Your task to perform on an android device: Open Maps and search for coffee Image 0: 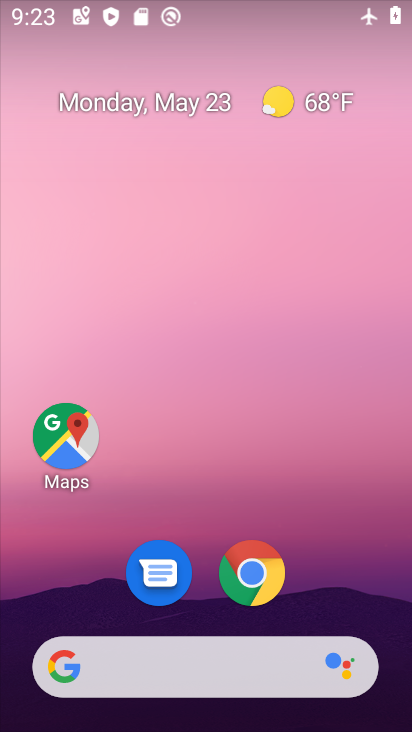
Step 0: click (80, 429)
Your task to perform on an android device: Open Maps and search for coffee Image 1: 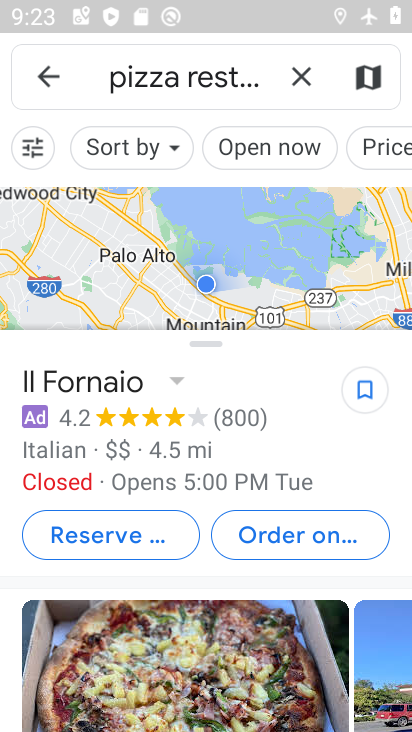
Step 1: click (302, 81)
Your task to perform on an android device: Open Maps and search for coffee Image 2: 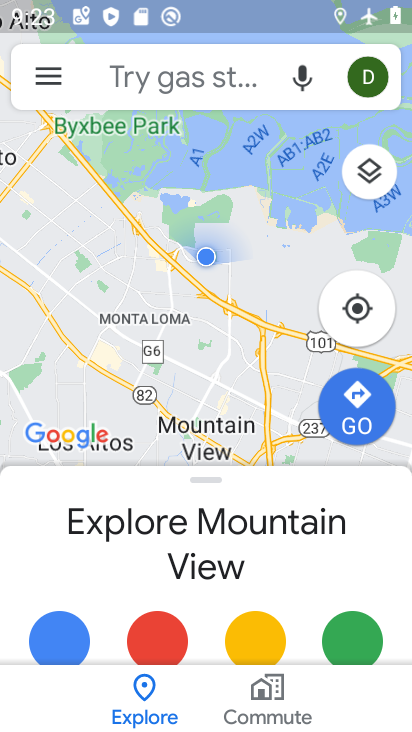
Step 2: click (212, 88)
Your task to perform on an android device: Open Maps and search for coffee Image 3: 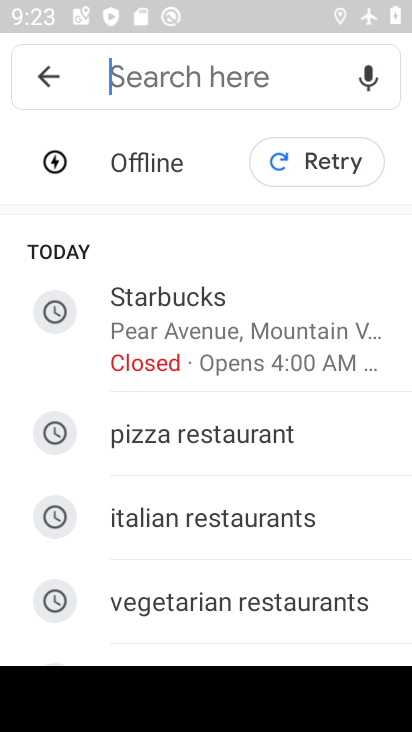
Step 3: drag from (324, 503) to (327, 138)
Your task to perform on an android device: Open Maps and search for coffee Image 4: 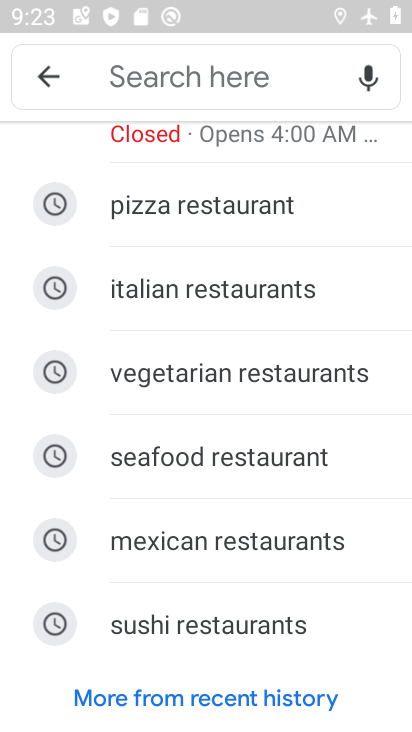
Step 4: drag from (270, 499) to (308, 341)
Your task to perform on an android device: Open Maps and search for coffee Image 5: 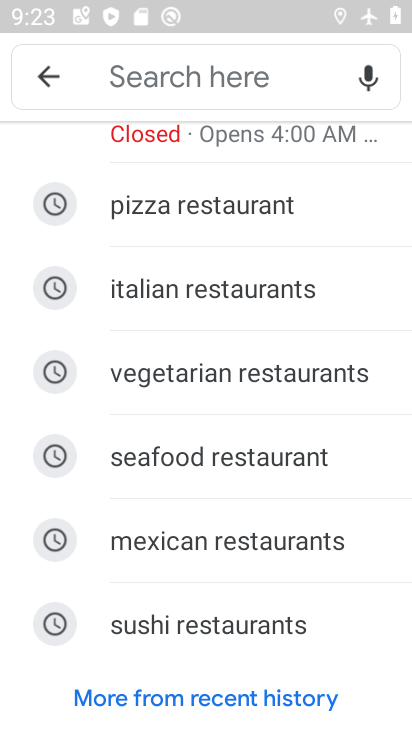
Step 5: click (270, 69)
Your task to perform on an android device: Open Maps and search for coffee Image 6: 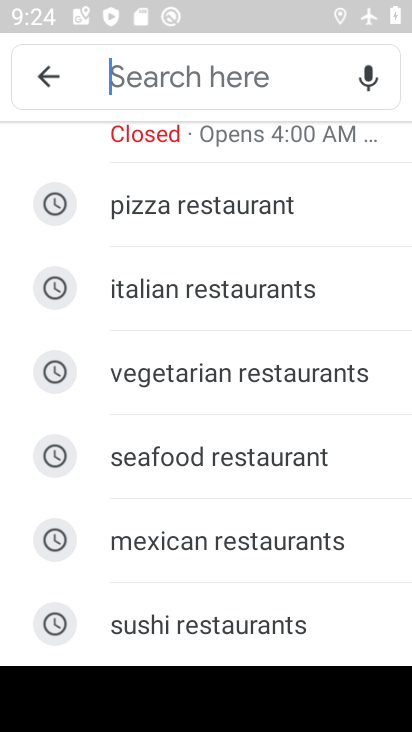
Step 6: type "coffee"
Your task to perform on an android device: Open Maps and search for coffee Image 7: 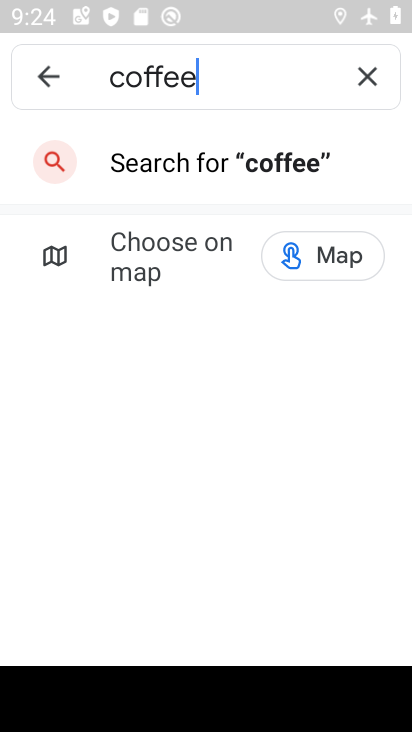
Step 7: task complete